Your task to perform on an android device: Open Youtube and go to "Your channel" Image 0: 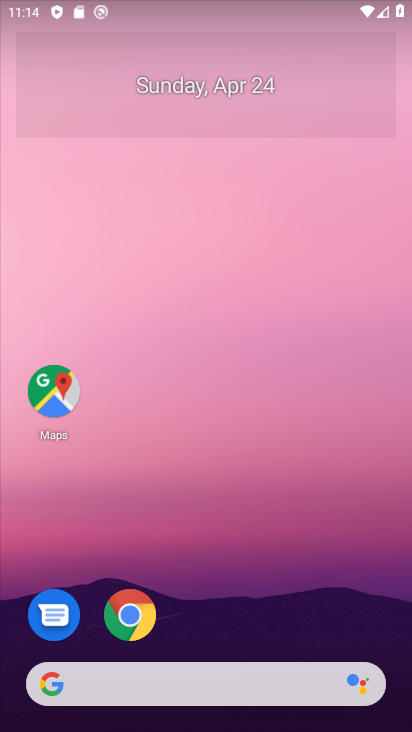
Step 0: drag from (217, 574) to (191, 184)
Your task to perform on an android device: Open Youtube and go to "Your channel" Image 1: 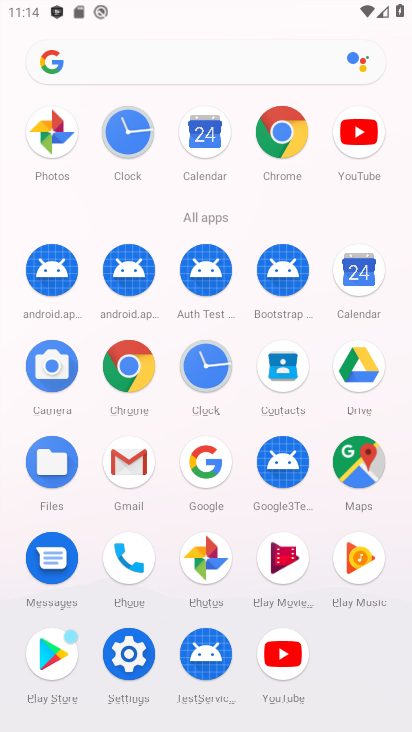
Step 1: click (280, 646)
Your task to perform on an android device: Open Youtube and go to "Your channel" Image 2: 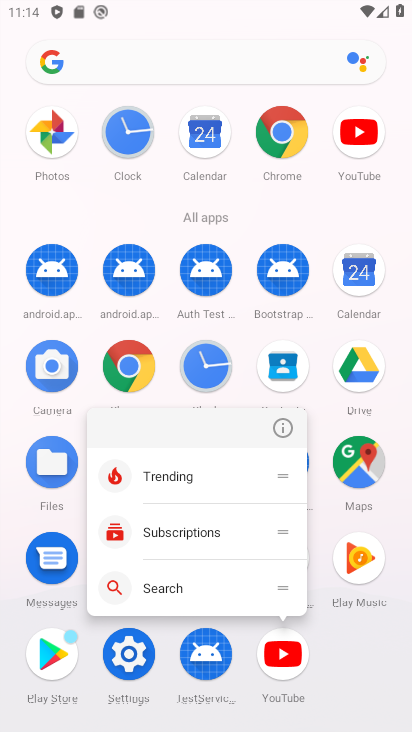
Step 2: click (280, 652)
Your task to perform on an android device: Open Youtube and go to "Your channel" Image 3: 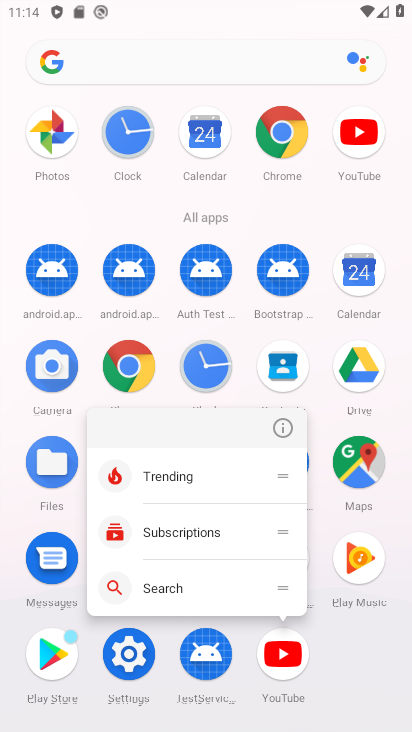
Step 3: click (280, 648)
Your task to perform on an android device: Open Youtube and go to "Your channel" Image 4: 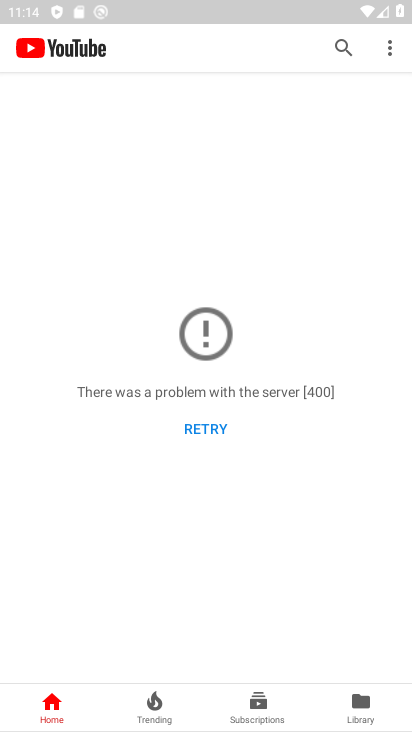
Step 4: click (354, 695)
Your task to perform on an android device: Open Youtube and go to "Your channel" Image 5: 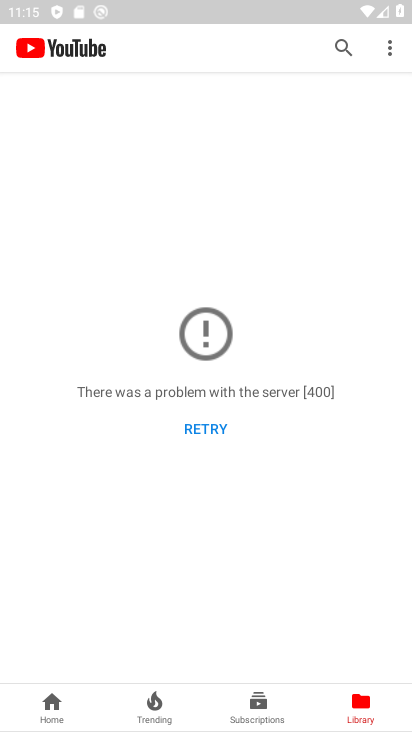
Step 5: task complete